Your task to perform on an android device: open app "Nova Launcher" (install if not already installed) Image 0: 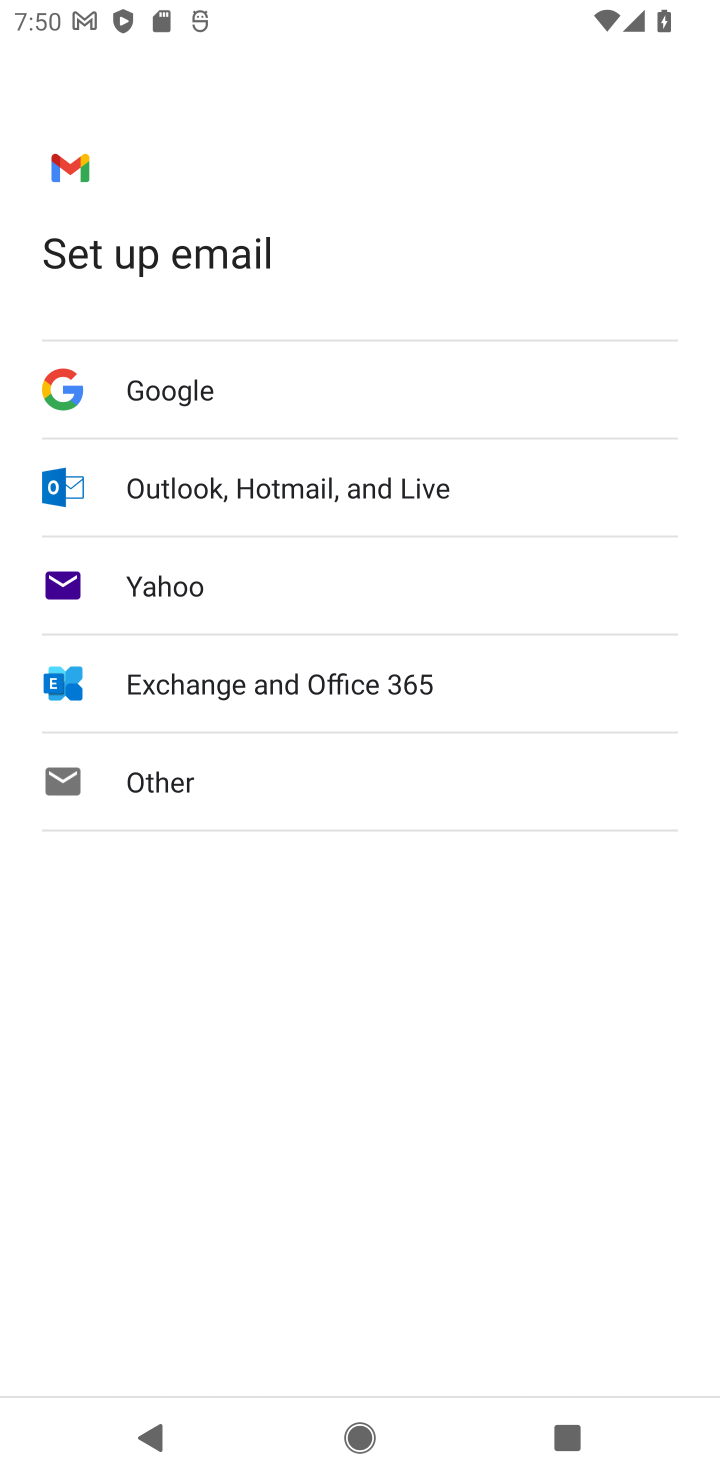
Step 0: press home button
Your task to perform on an android device: open app "Nova Launcher" (install if not already installed) Image 1: 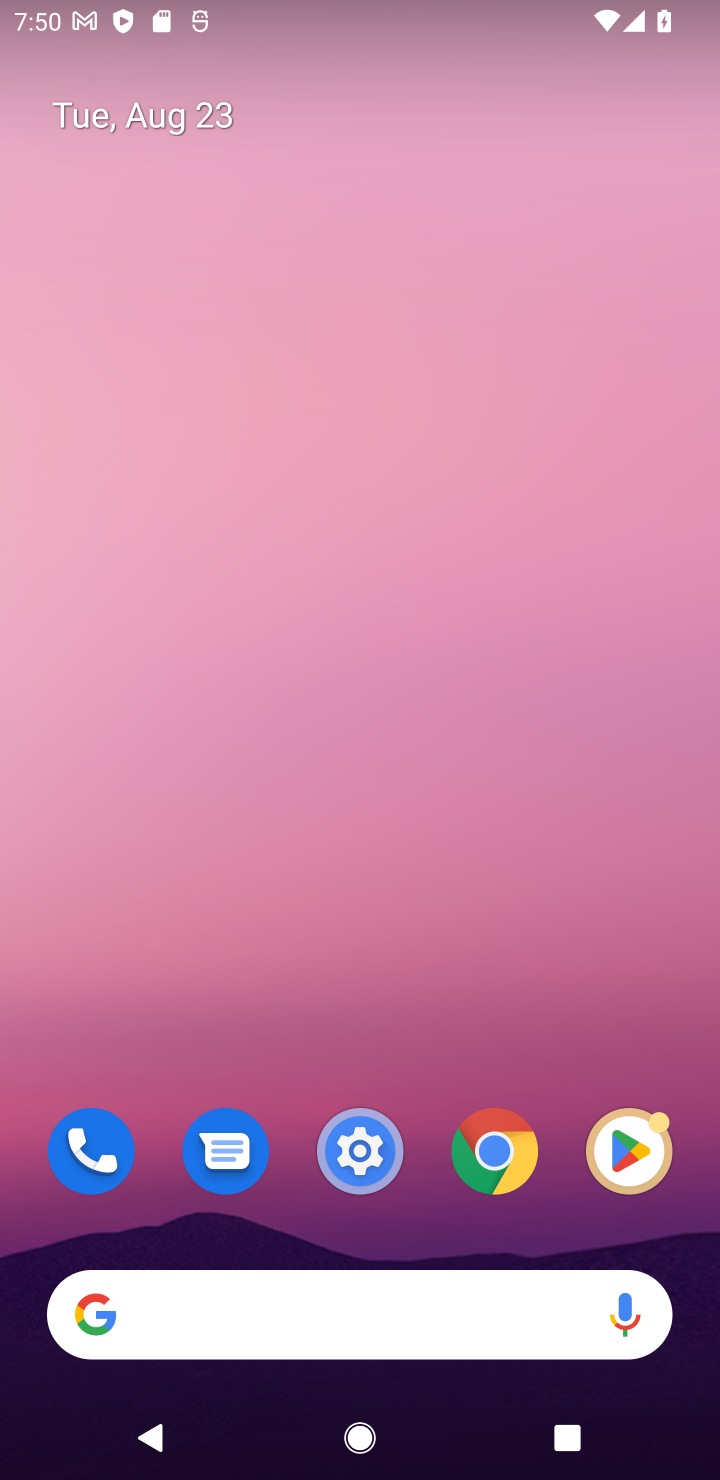
Step 1: click (643, 1160)
Your task to perform on an android device: open app "Nova Launcher" (install if not already installed) Image 2: 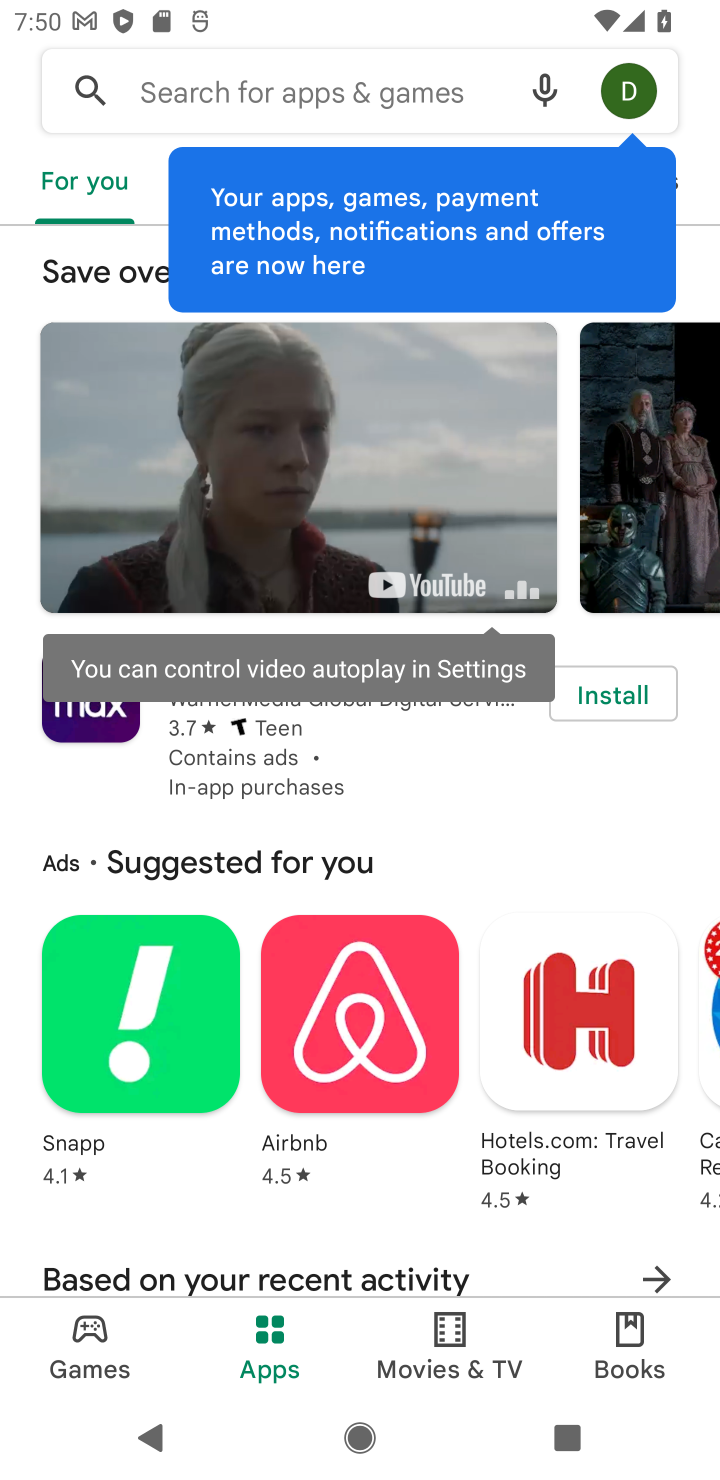
Step 2: click (330, 100)
Your task to perform on an android device: open app "Nova Launcher" (install if not already installed) Image 3: 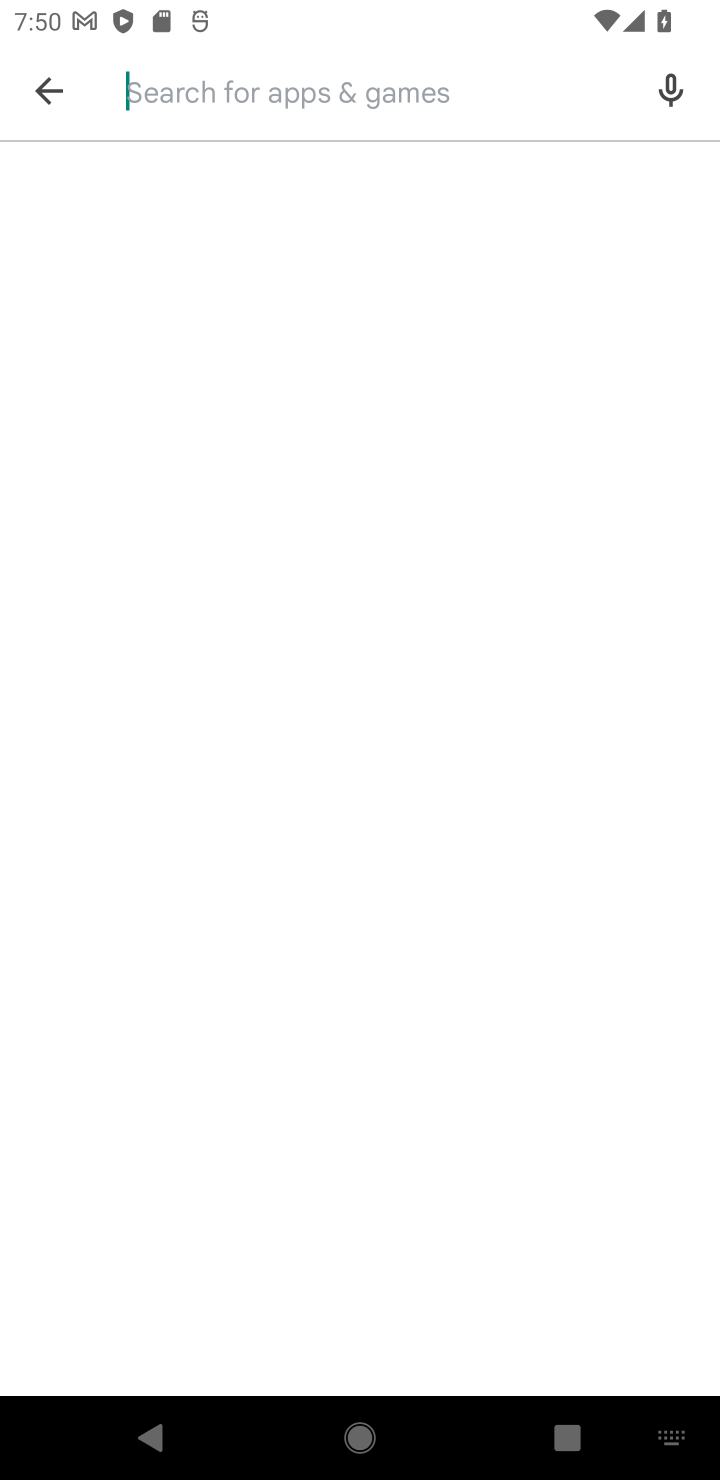
Step 3: type "Nova Launcher"
Your task to perform on an android device: open app "Nova Launcher" (install if not already installed) Image 4: 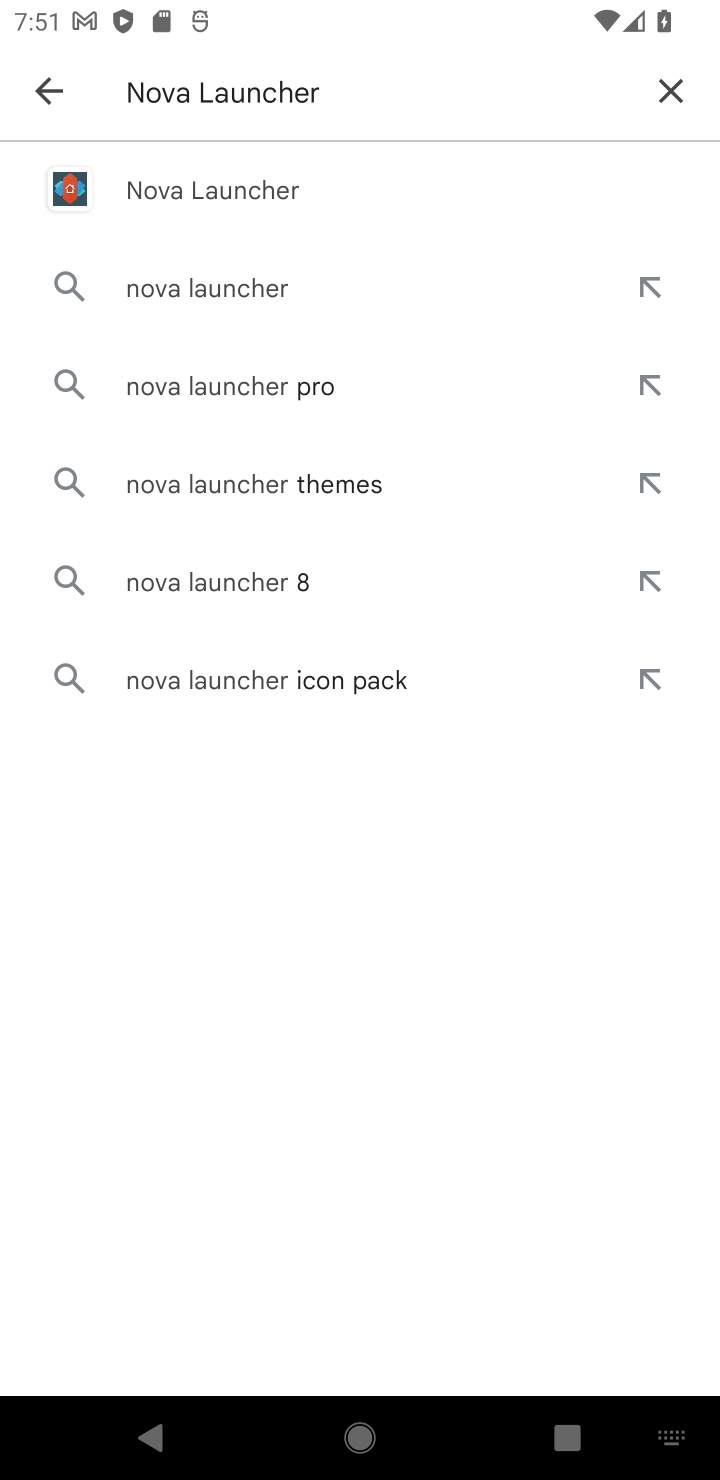
Step 4: click (271, 196)
Your task to perform on an android device: open app "Nova Launcher" (install if not already installed) Image 5: 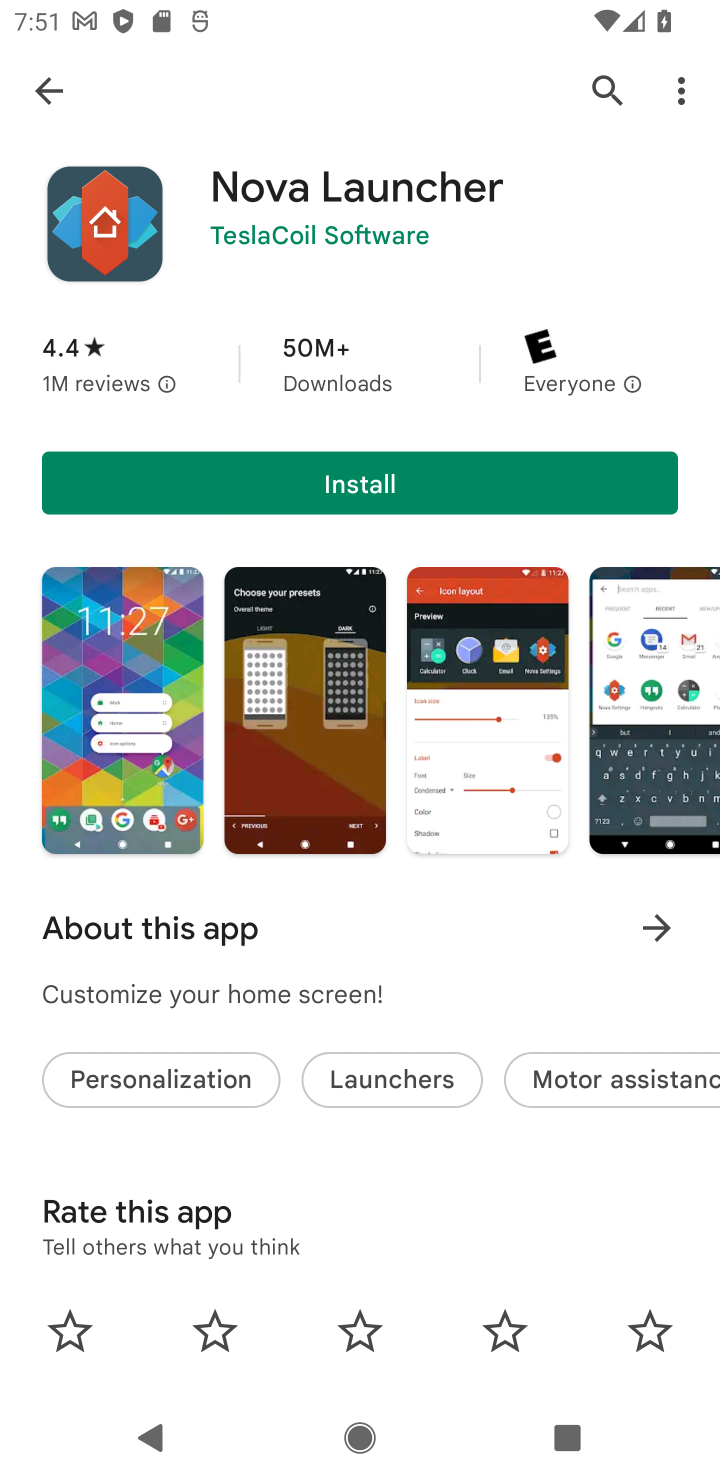
Step 5: click (326, 473)
Your task to perform on an android device: open app "Nova Launcher" (install if not already installed) Image 6: 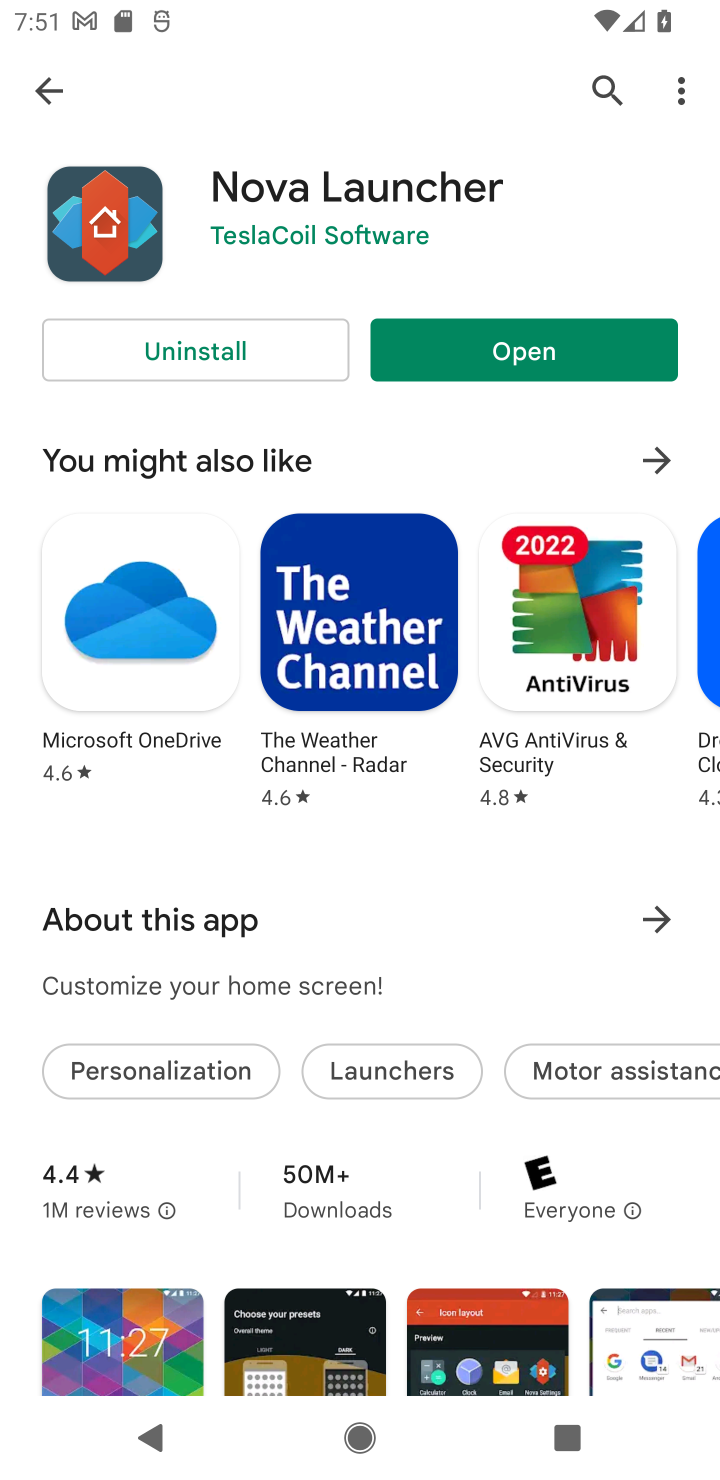
Step 6: click (481, 376)
Your task to perform on an android device: open app "Nova Launcher" (install if not already installed) Image 7: 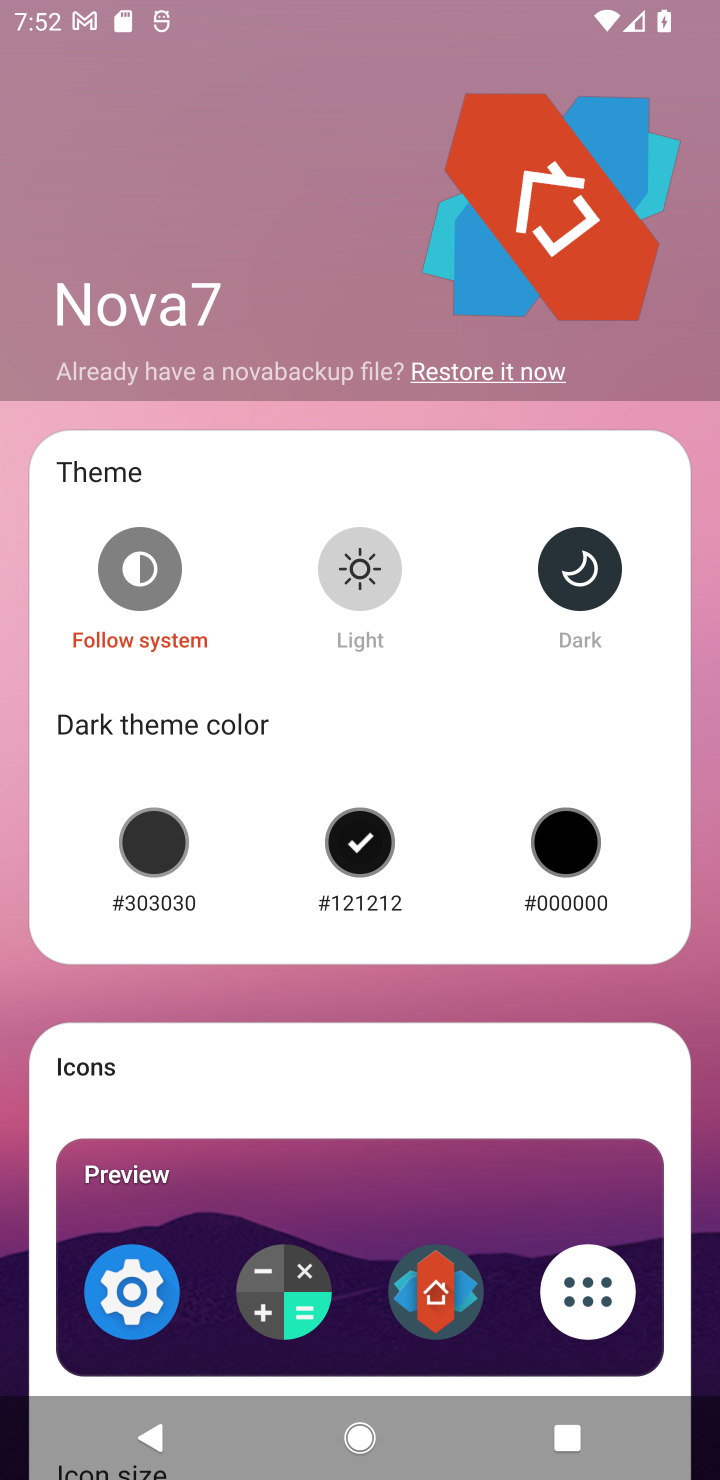
Step 7: task complete